Your task to perform on an android device: turn on data saver in the chrome app Image 0: 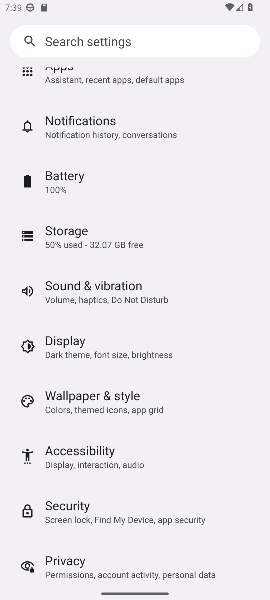
Step 0: press home button
Your task to perform on an android device: turn on data saver in the chrome app Image 1: 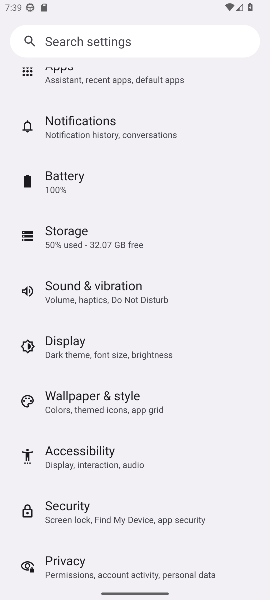
Step 1: press home button
Your task to perform on an android device: turn on data saver in the chrome app Image 2: 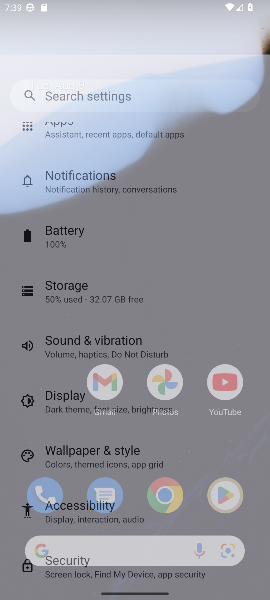
Step 2: press home button
Your task to perform on an android device: turn on data saver in the chrome app Image 3: 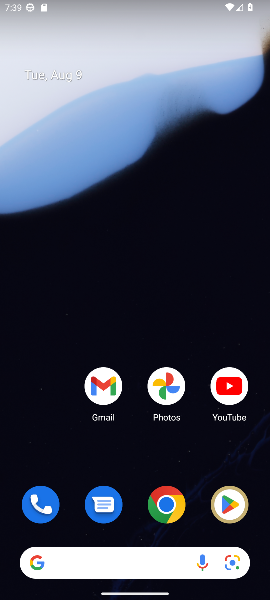
Step 3: click (150, 521)
Your task to perform on an android device: turn on data saver in the chrome app Image 4: 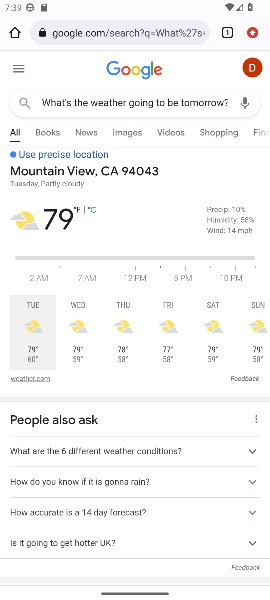
Step 4: task complete